Your task to perform on an android device: toggle show notifications on the lock screen Image 0: 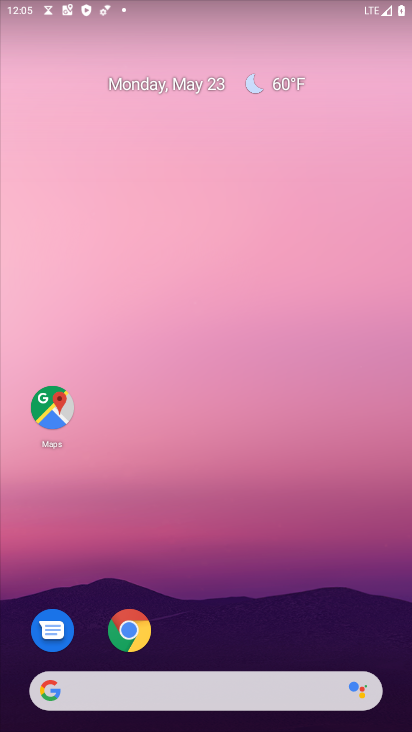
Step 0: drag from (247, 625) to (210, 33)
Your task to perform on an android device: toggle show notifications on the lock screen Image 1: 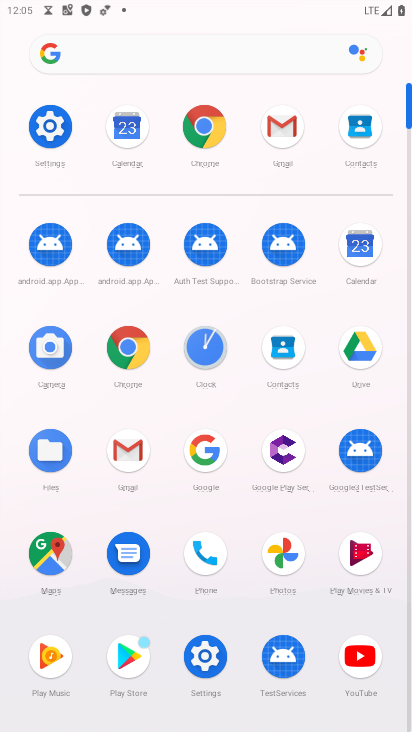
Step 1: click (52, 127)
Your task to perform on an android device: toggle show notifications on the lock screen Image 2: 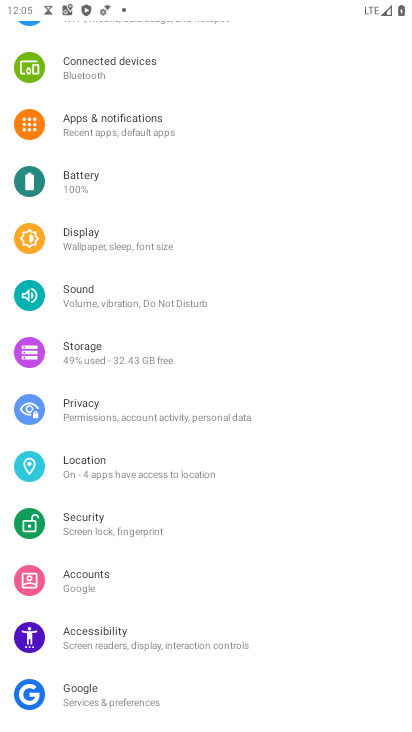
Step 2: click (132, 126)
Your task to perform on an android device: toggle show notifications on the lock screen Image 3: 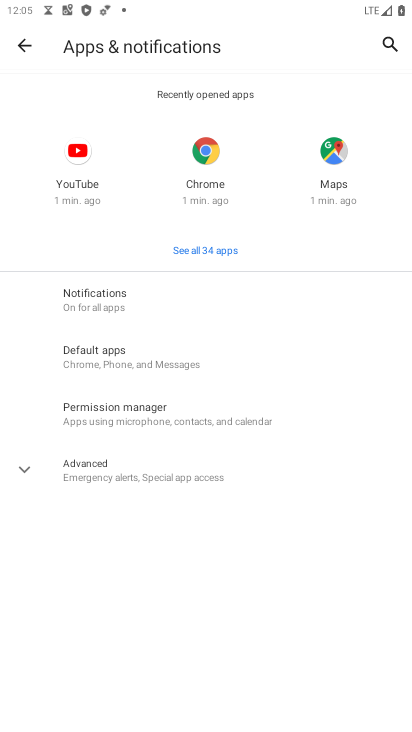
Step 3: click (109, 300)
Your task to perform on an android device: toggle show notifications on the lock screen Image 4: 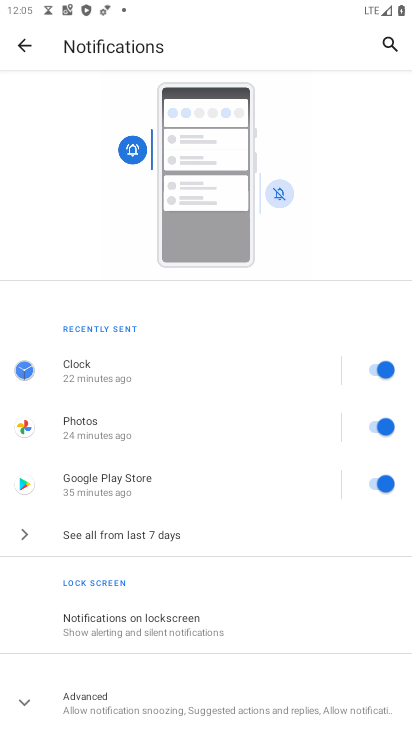
Step 4: click (124, 629)
Your task to perform on an android device: toggle show notifications on the lock screen Image 5: 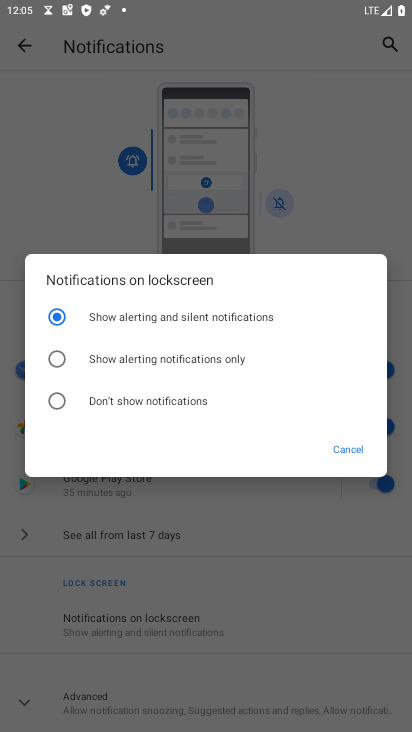
Step 5: click (53, 409)
Your task to perform on an android device: toggle show notifications on the lock screen Image 6: 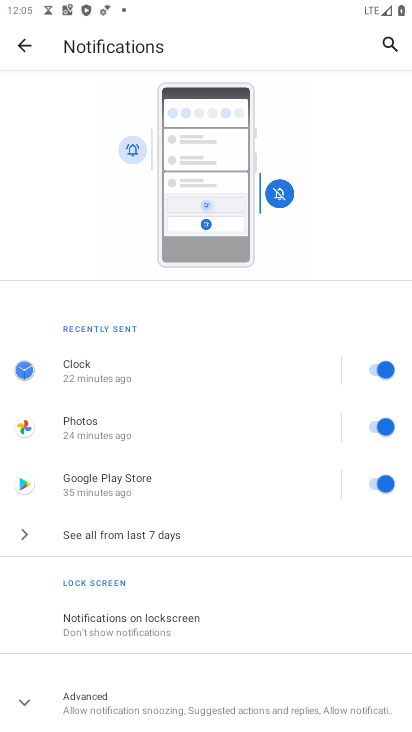
Step 6: task complete